Your task to perform on an android device: turn off javascript in the chrome app Image 0: 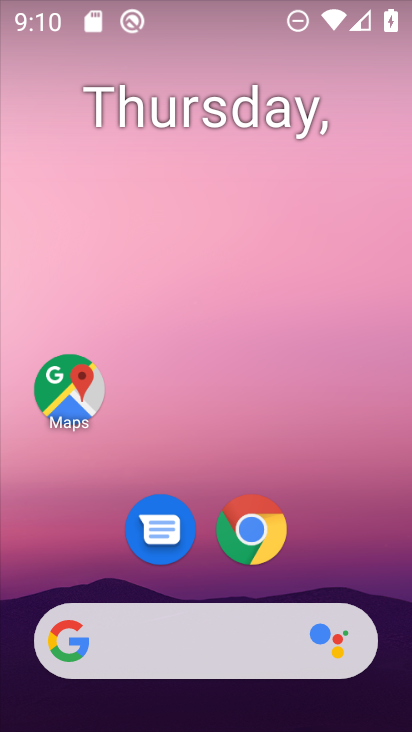
Step 0: click (258, 525)
Your task to perform on an android device: turn off javascript in the chrome app Image 1: 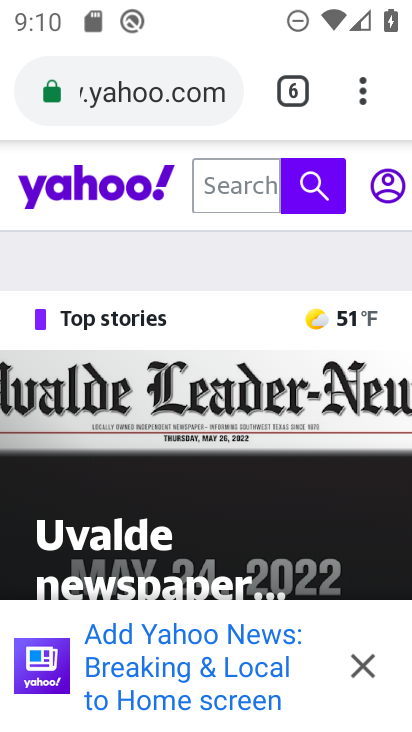
Step 1: click (365, 97)
Your task to perform on an android device: turn off javascript in the chrome app Image 2: 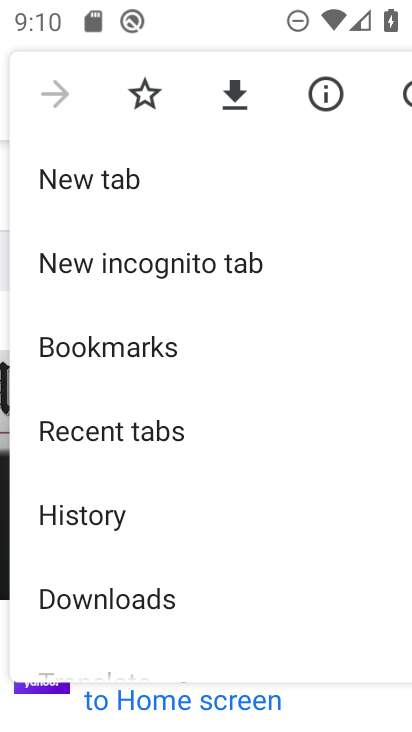
Step 2: drag from (114, 649) to (134, 112)
Your task to perform on an android device: turn off javascript in the chrome app Image 3: 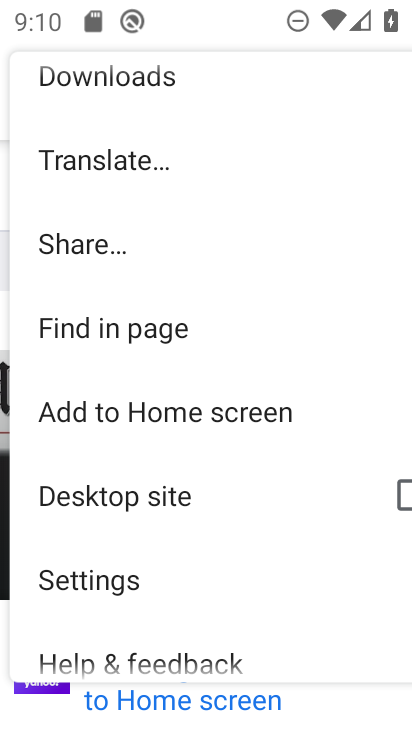
Step 3: click (102, 585)
Your task to perform on an android device: turn off javascript in the chrome app Image 4: 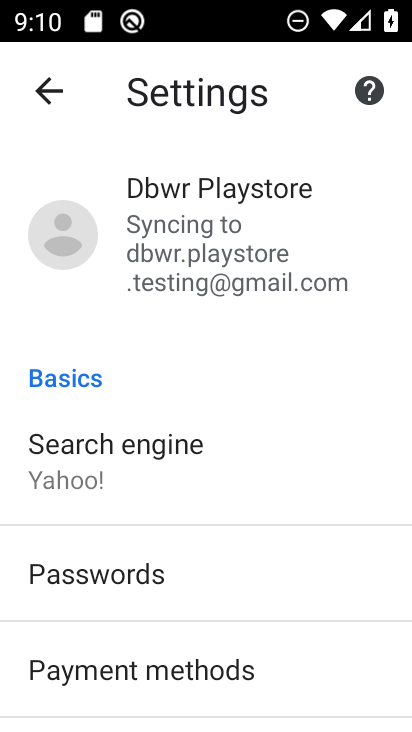
Step 4: drag from (278, 707) to (283, 158)
Your task to perform on an android device: turn off javascript in the chrome app Image 5: 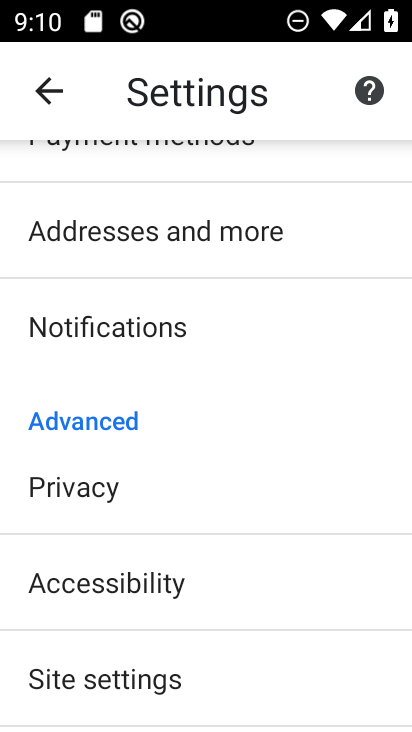
Step 5: click (147, 669)
Your task to perform on an android device: turn off javascript in the chrome app Image 6: 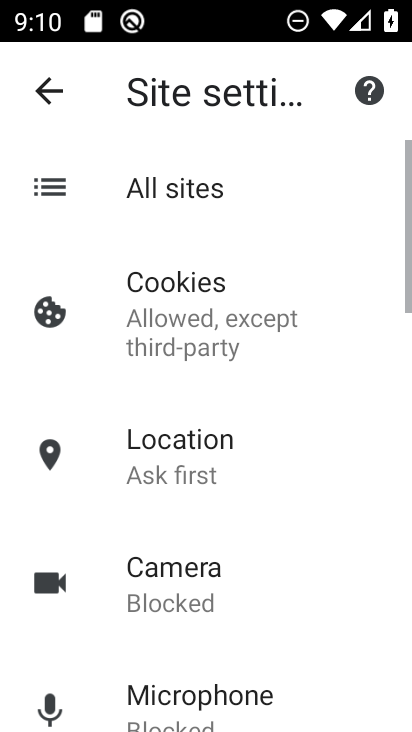
Step 6: drag from (244, 677) to (269, 144)
Your task to perform on an android device: turn off javascript in the chrome app Image 7: 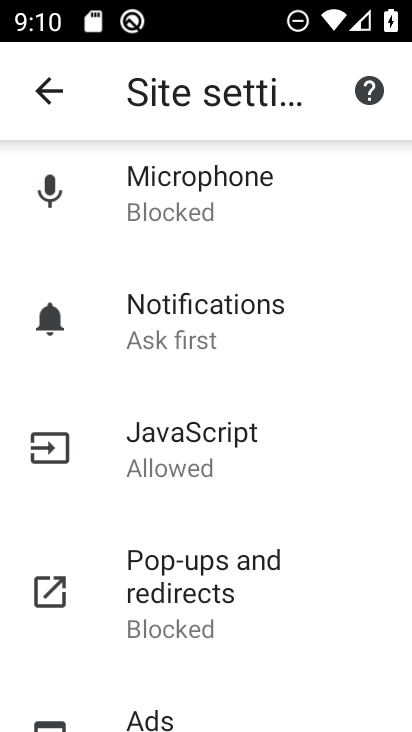
Step 7: click (180, 453)
Your task to perform on an android device: turn off javascript in the chrome app Image 8: 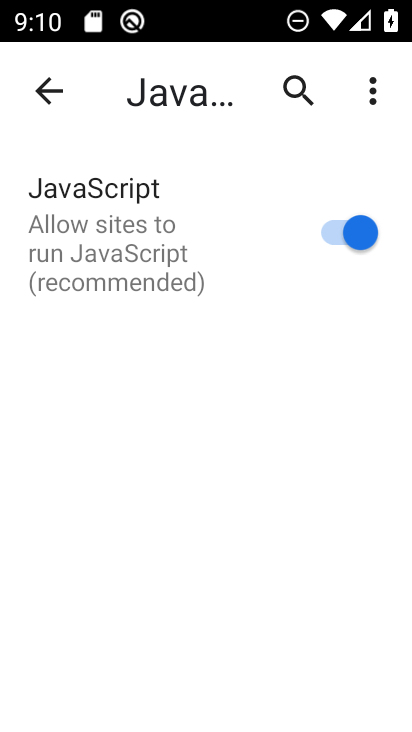
Step 8: click (336, 236)
Your task to perform on an android device: turn off javascript in the chrome app Image 9: 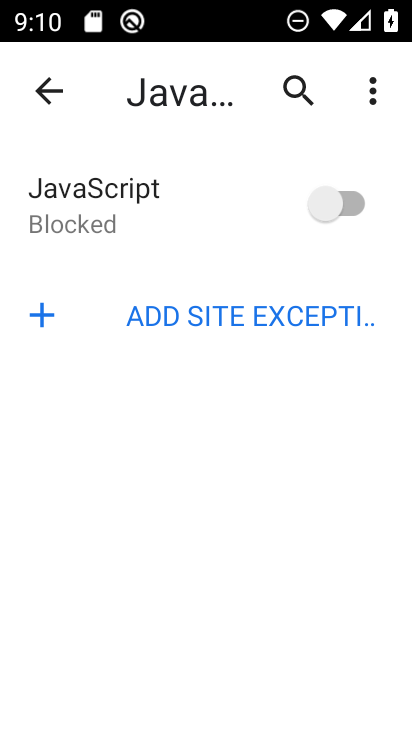
Step 9: task complete